Your task to perform on an android device: Is it going to rain tomorrow? Image 0: 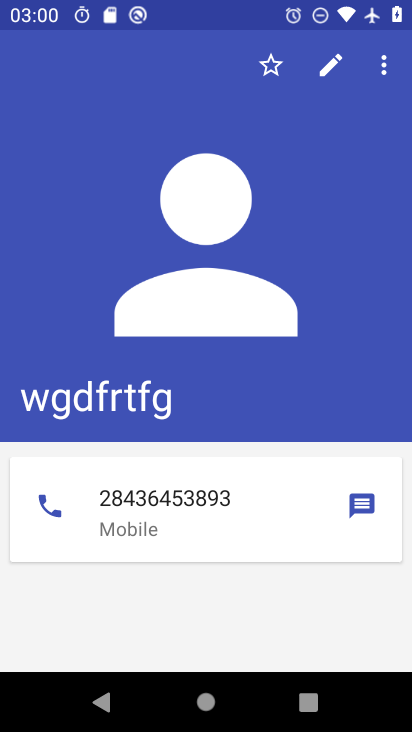
Step 0: press home button
Your task to perform on an android device: Is it going to rain tomorrow? Image 1: 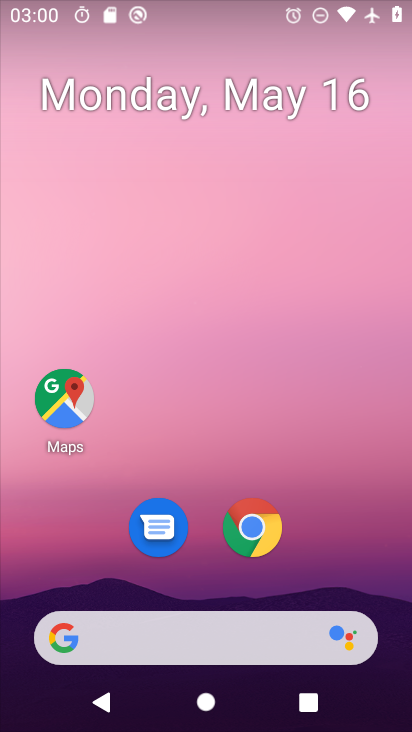
Step 1: click (69, 638)
Your task to perform on an android device: Is it going to rain tomorrow? Image 2: 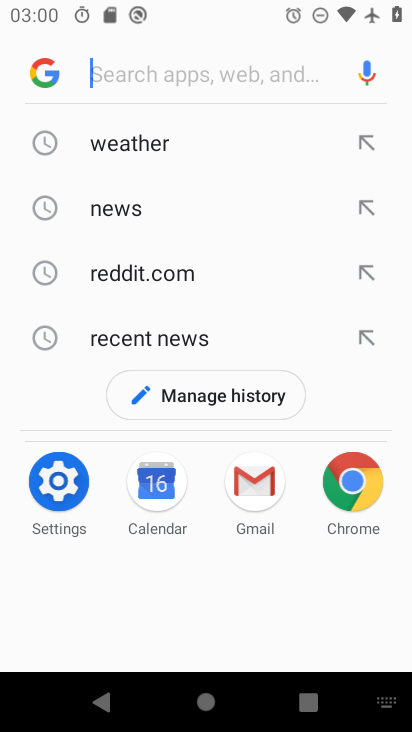
Step 2: click (151, 145)
Your task to perform on an android device: Is it going to rain tomorrow? Image 3: 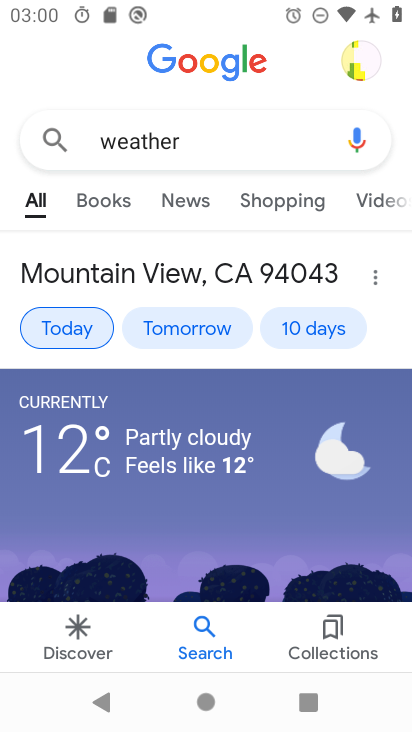
Step 3: task complete